Your task to perform on an android device: Go to settings Image 0: 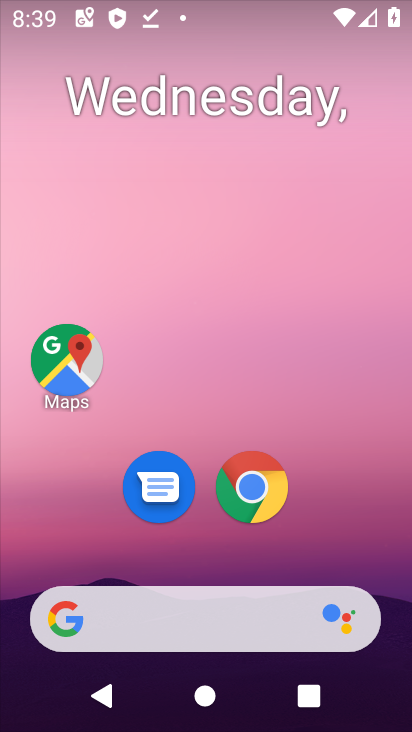
Step 0: drag from (250, 688) to (123, 142)
Your task to perform on an android device: Go to settings Image 1: 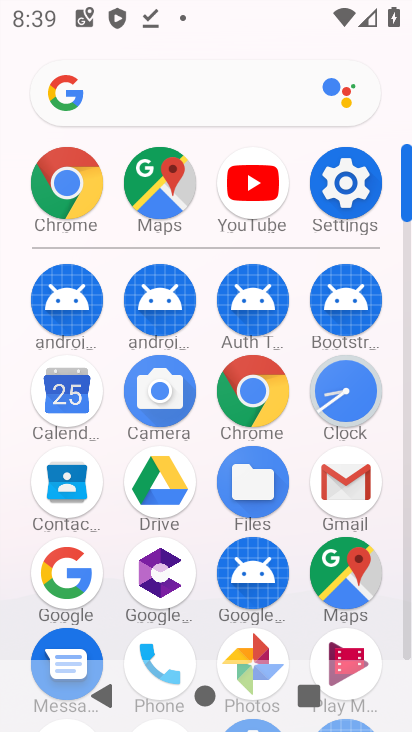
Step 1: click (334, 176)
Your task to perform on an android device: Go to settings Image 2: 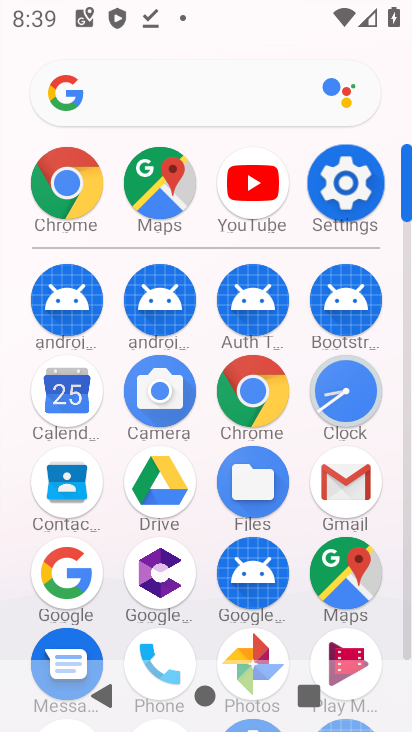
Step 2: click (345, 165)
Your task to perform on an android device: Go to settings Image 3: 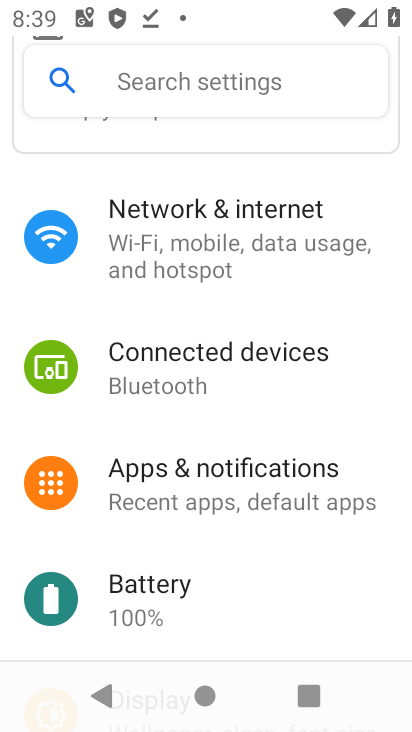
Step 3: task complete